Your task to perform on an android device: change the clock display to analog Image 0: 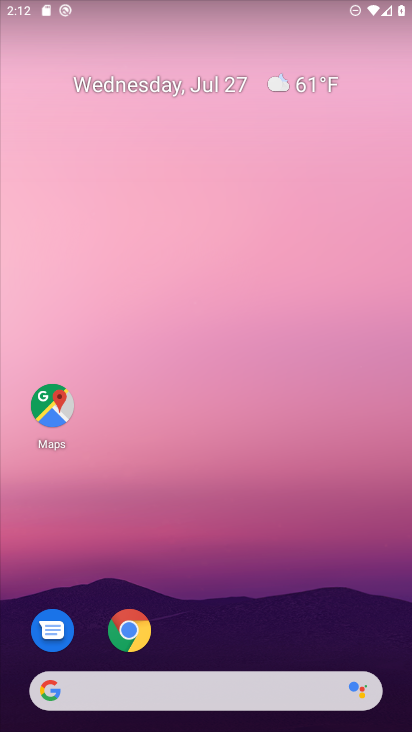
Step 0: drag from (288, 611) to (229, 11)
Your task to perform on an android device: change the clock display to analog Image 1: 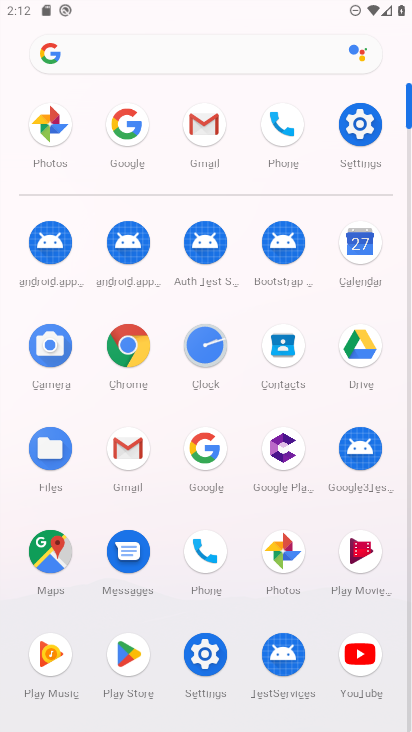
Step 1: click (195, 336)
Your task to perform on an android device: change the clock display to analog Image 2: 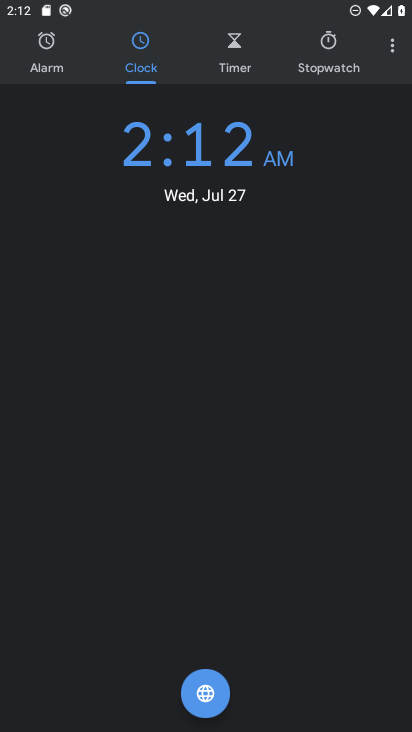
Step 2: click (391, 46)
Your task to perform on an android device: change the clock display to analog Image 3: 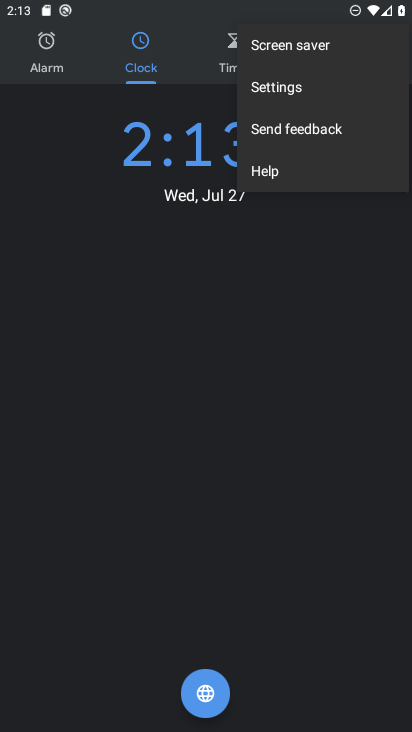
Step 3: click (316, 82)
Your task to perform on an android device: change the clock display to analog Image 4: 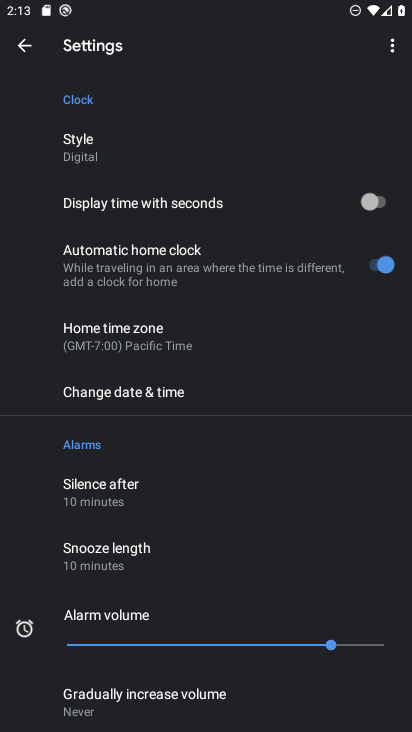
Step 4: click (123, 151)
Your task to perform on an android device: change the clock display to analog Image 5: 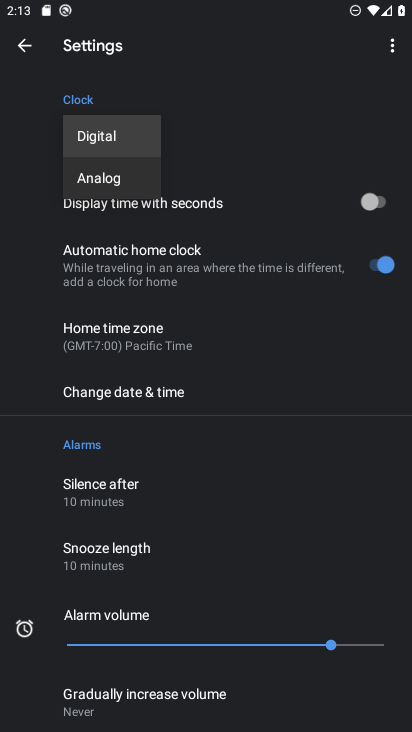
Step 5: click (140, 179)
Your task to perform on an android device: change the clock display to analog Image 6: 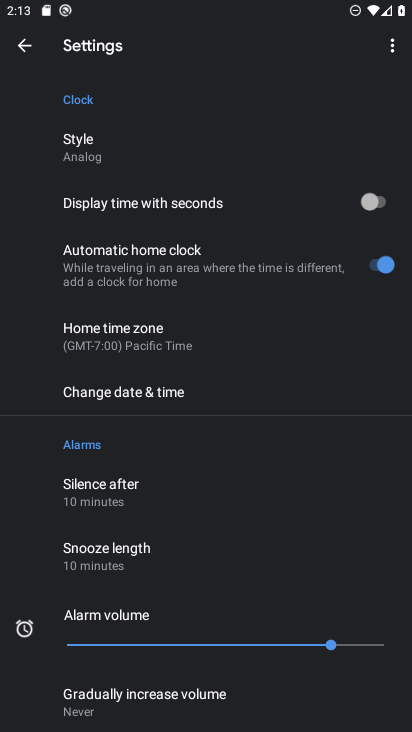
Step 6: task complete